Your task to perform on an android device: Clear the cart on amazon. Add macbook to the cart on amazon, then select checkout. Image 0: 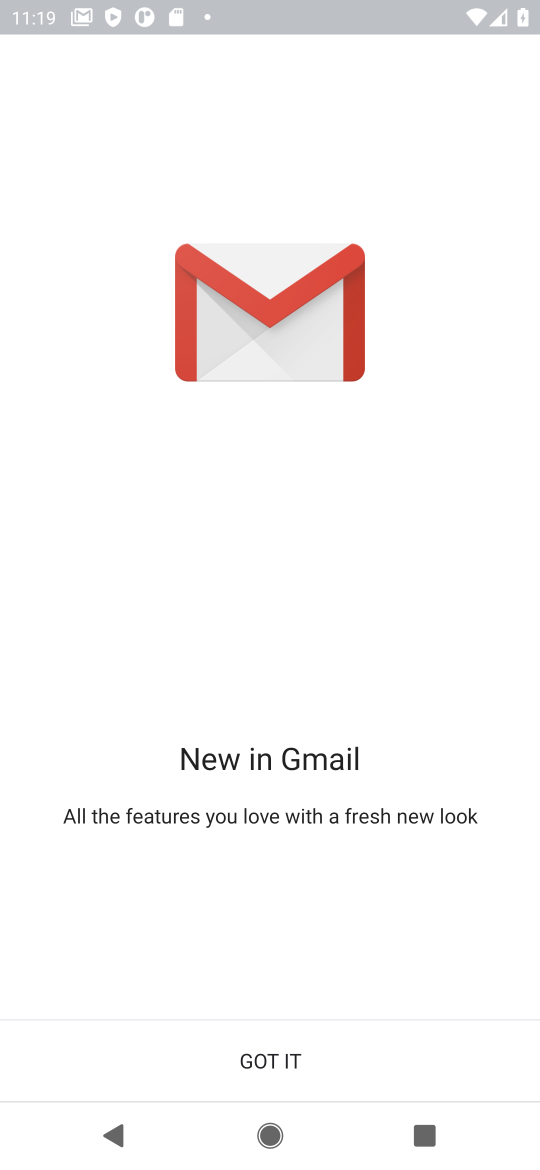
Step 0: press home button
Your task to perform on an android device: Clear the cart on amazon. Add macbook to the cart on amazon, then select checkout. Image 1: 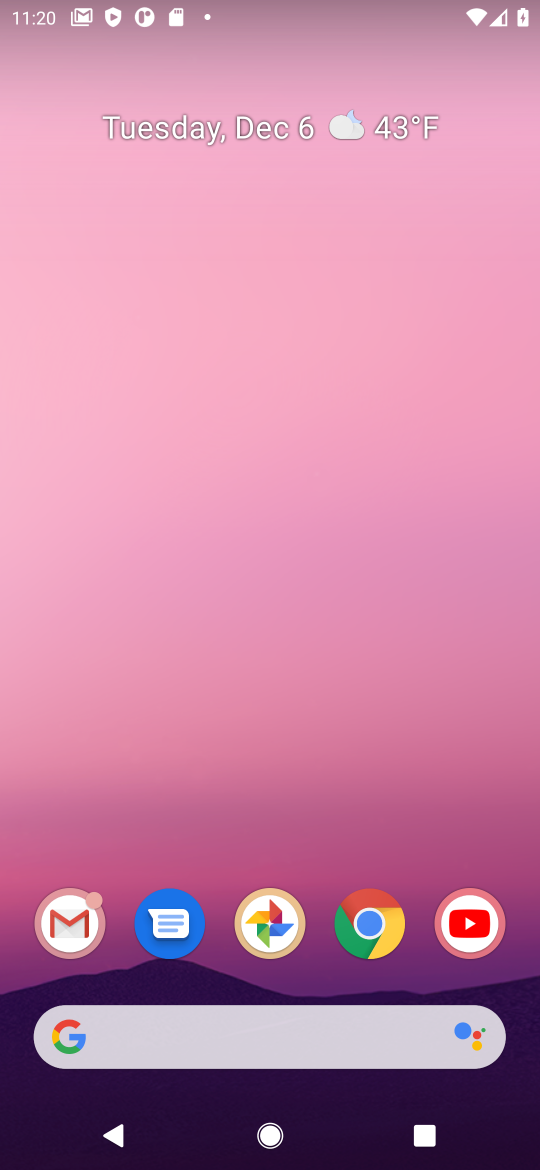
Step 1: click (374, 916)
Your task to perform on an android device: Clear the cart on amazon. Add macbook to the cart on amazon, then select checkout. Image 2: 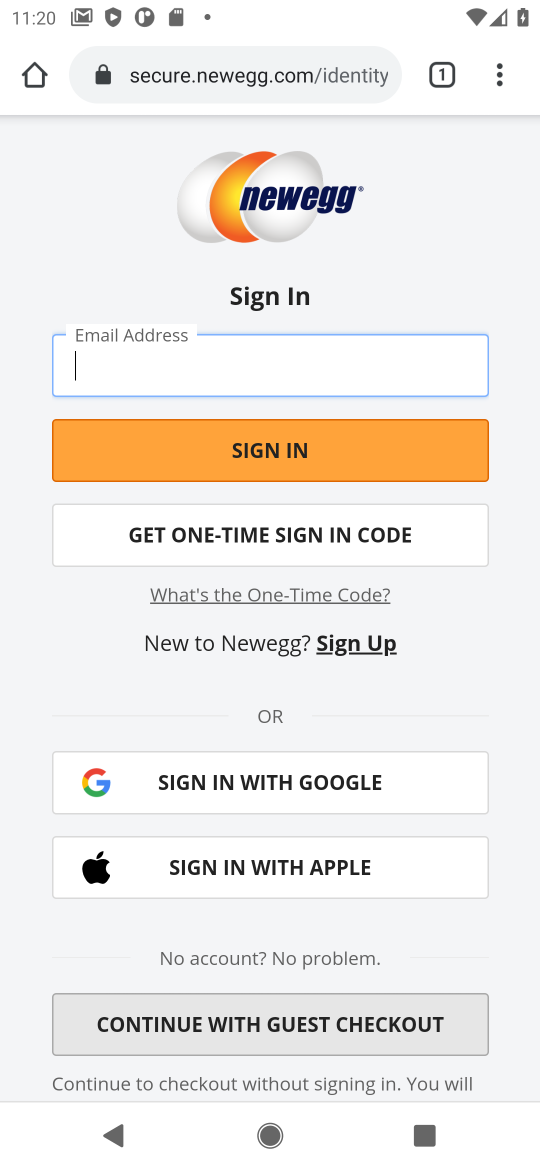
Step 2: click (240, 82)
Your task to perform on an android device: Clear the cart on amazon. Add macbook to the cart on amazon, then select checkout. Image 3: 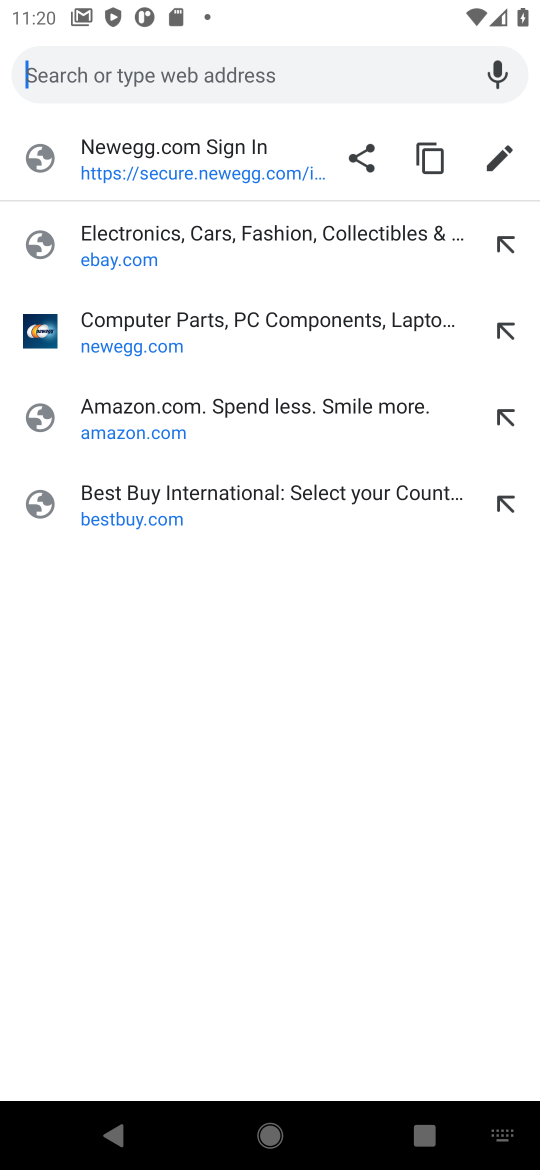
Step 3: click (125, 427)
Your task to perform on an android device: Clear the cart on amazon. Add macbook to the cart on amazon, then select checkout. Image 4: 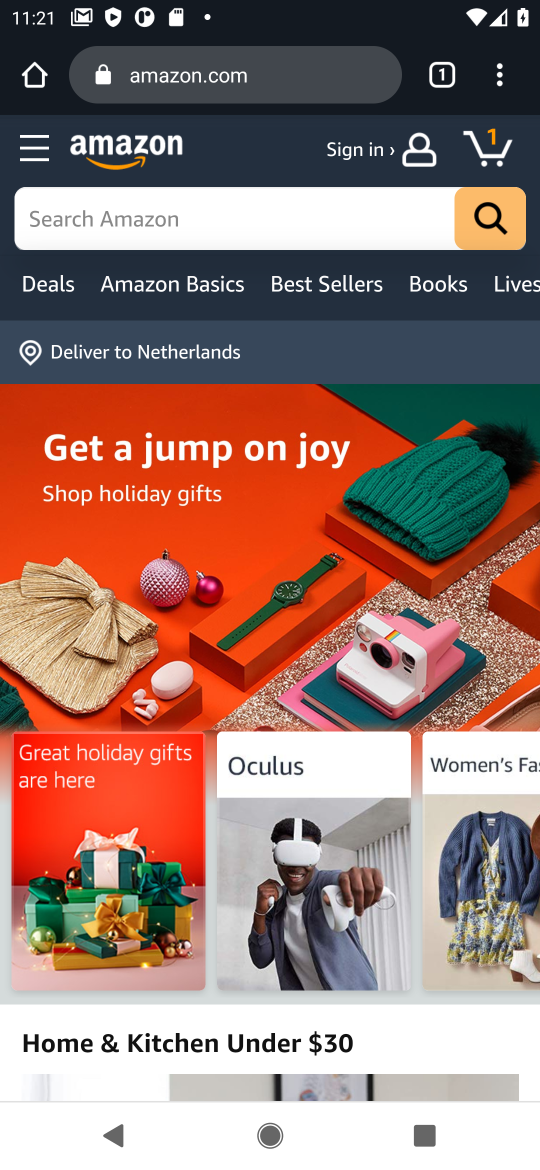
Step 4: click (485, 137)
Your task to perform on an android device: Clear the cart on amazon. Add macbook to the cart on amazon, then select checkout. Image 5: 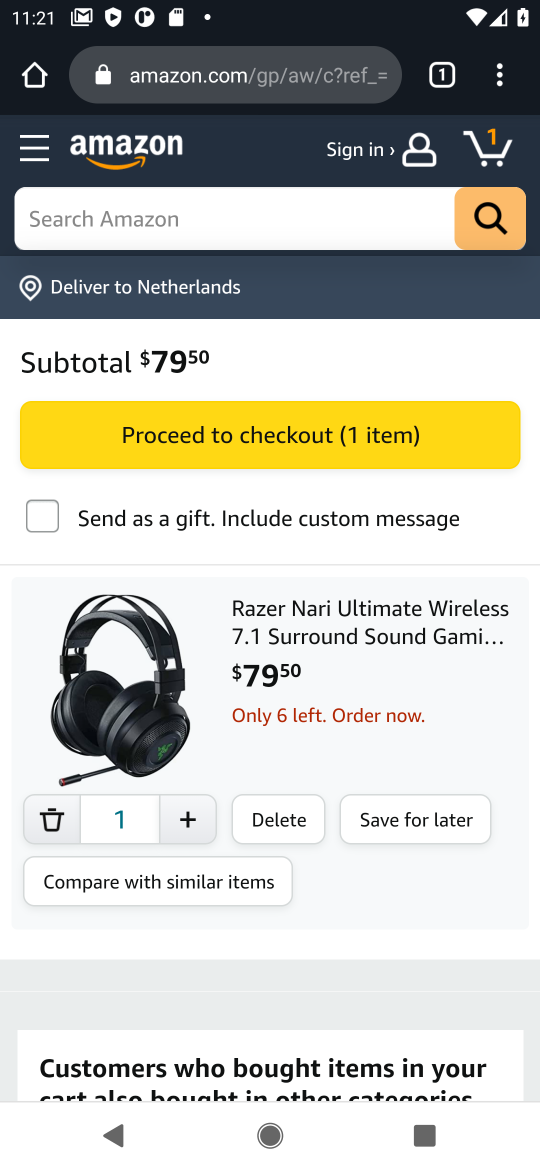
Step 5: click (273, 827)
Your task to perform on an android device: Clear the cart on amazon. Add macbook to the cart on amazon, then select checkout. Image 6: 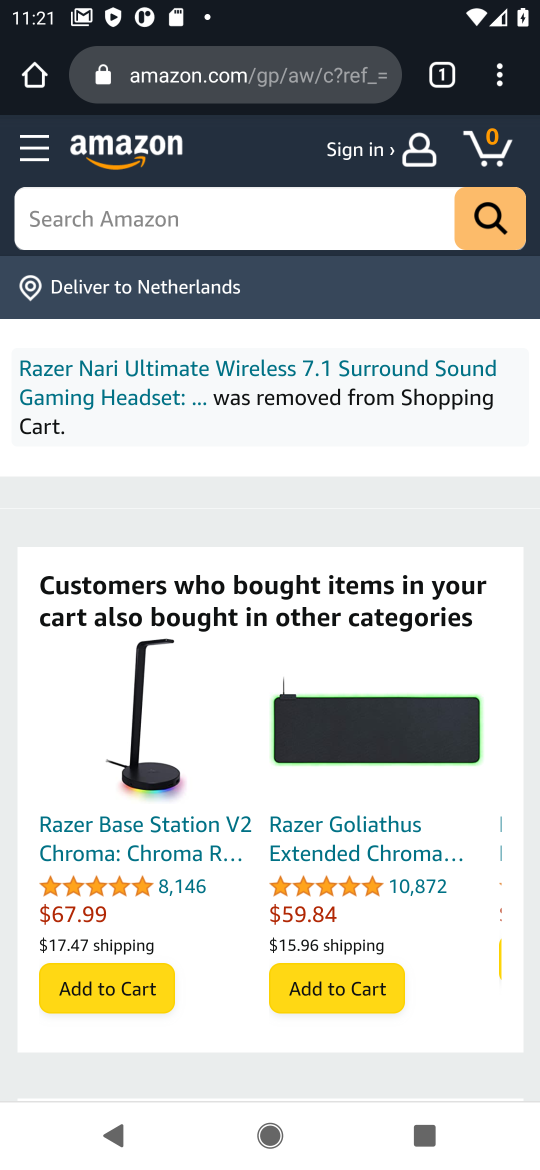
Step 6: click (248, 220)
Your task to perform on an android device: Clear the cart on amazon. Add macbook to the cart on amazon, then select checkout. Image 7: 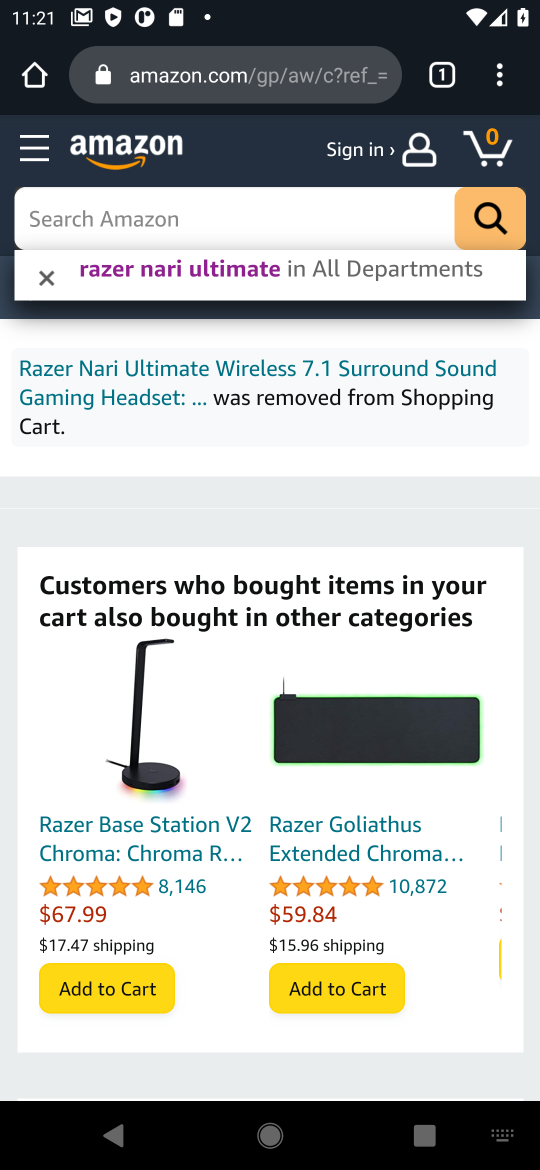
Step 7: type "MACBOOK"
Your task to perform on an android device: Clear the cart on amazon. Add macbook to the cart on amazon, then select checkout. Image 8: 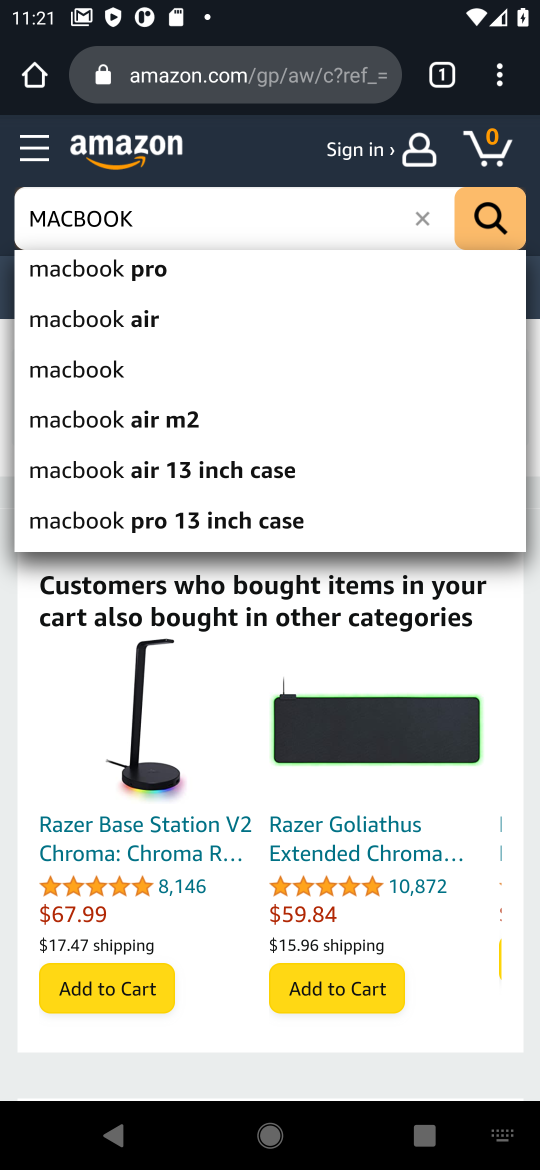
Step 8: click (99, 268)
Your task to perform on an android device: Clear the cart on amazon. Add macbook to the cart on amazon, then select checkout. Image 9: 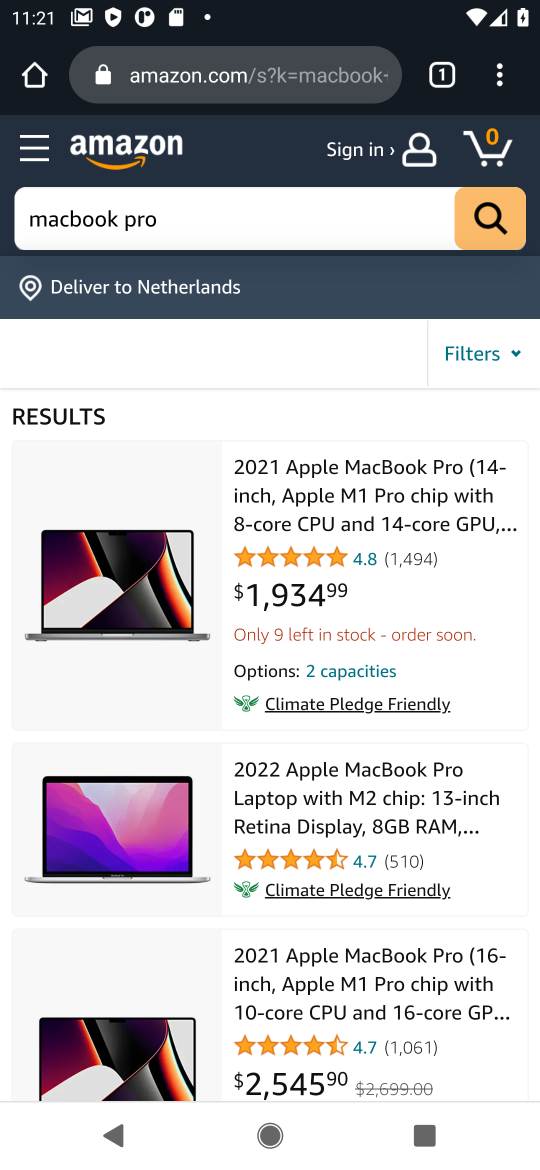
Step 9: click (146, 584)
Your task to perform on an android device: Clear the cart on amazon. Add macbook to the cart on amazon, then select checkout. Image 10: 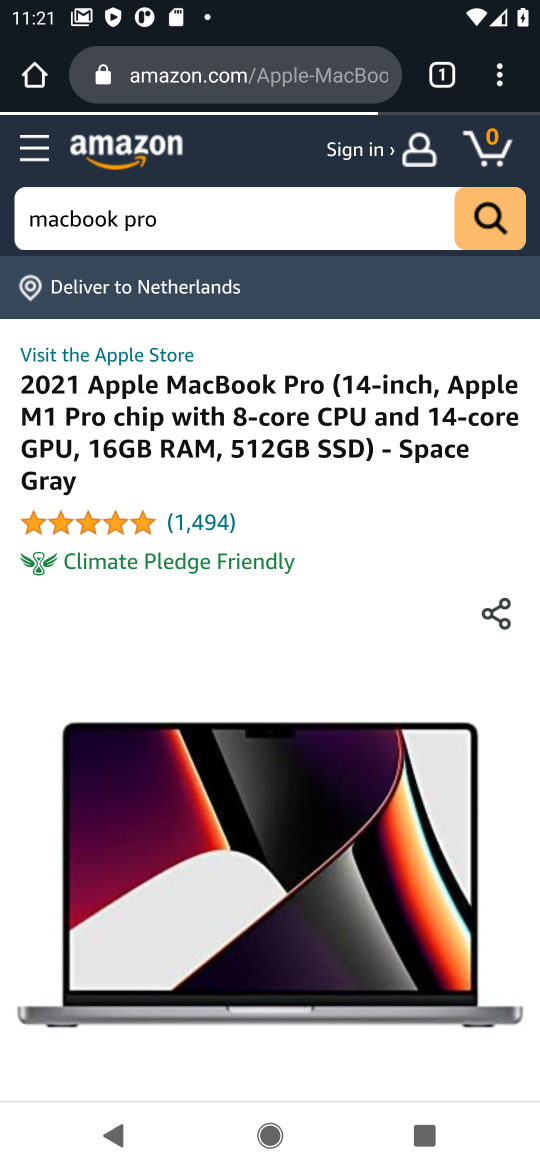
Step 10: task complete